Your task to perform on an android device: Search for Italian restaurants on Maps Image 0: 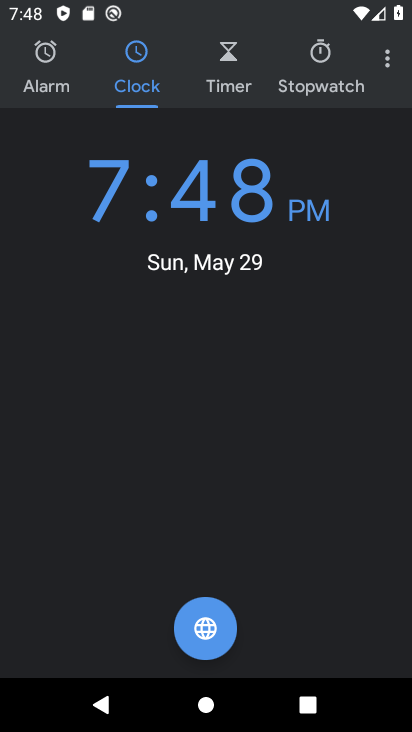
Step 0: press home button
Your task to perform on an android device: Search for Italian restaurants on Maps Image 1: 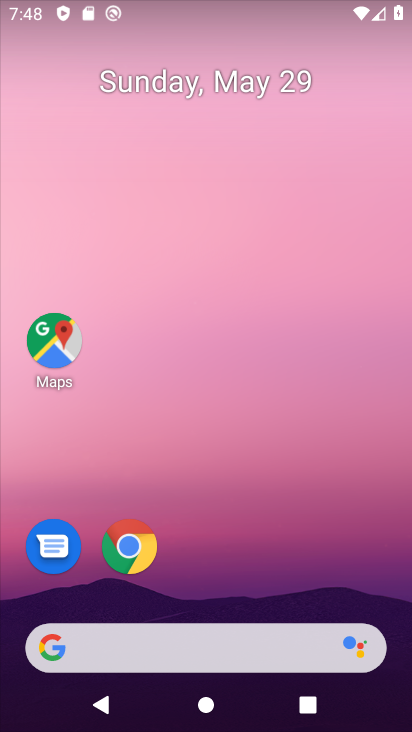
Step 1: click (64, 333)
Your task to perform on an android device: Search for Italian restaurants on Maps Image 2: 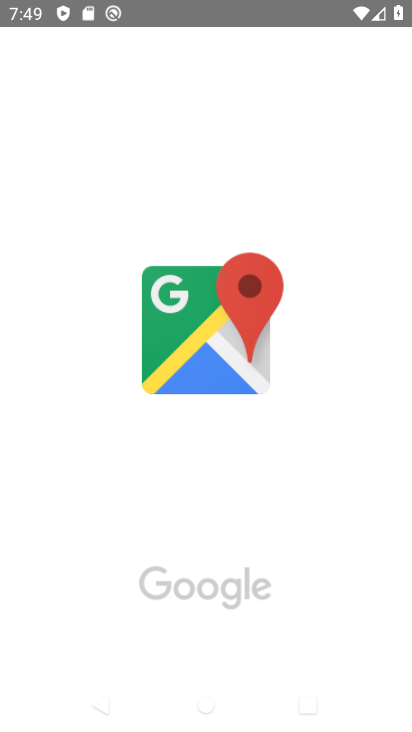
Step 2: task complete